Your task to perform on an android device: toggle show notifications on the lock screen Image 0: 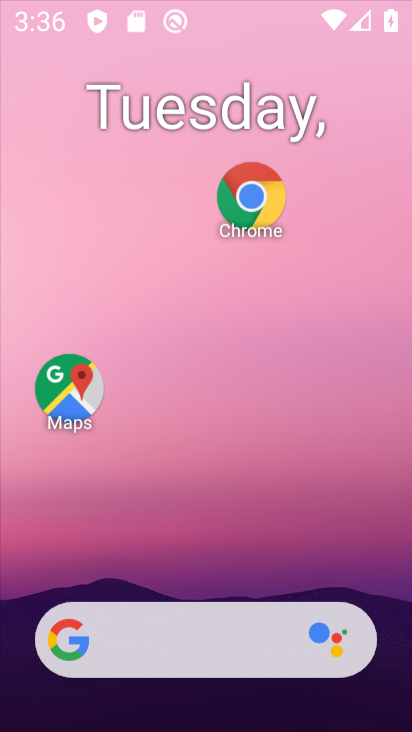
Step 0: click (191, 186)
Your task to perform on an android device: toggle show notifications on the lock screen Image 1: 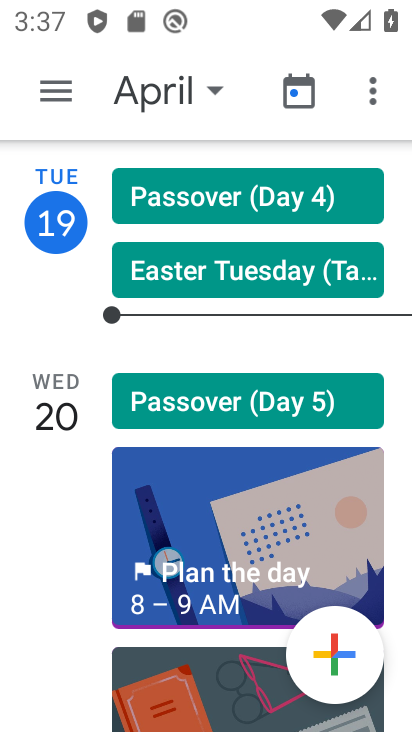
Step 1: press back button
Your task to perform on an android device: toggle show notifications on the lock screen Image 2: 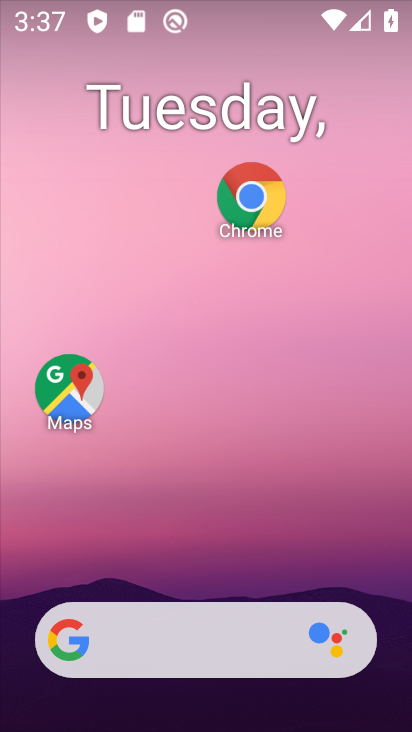
Step 2: drag from (219, 560) to (219, 120)
Your task to perform on an android device: toggle show notifications on the lock screen Image 3: 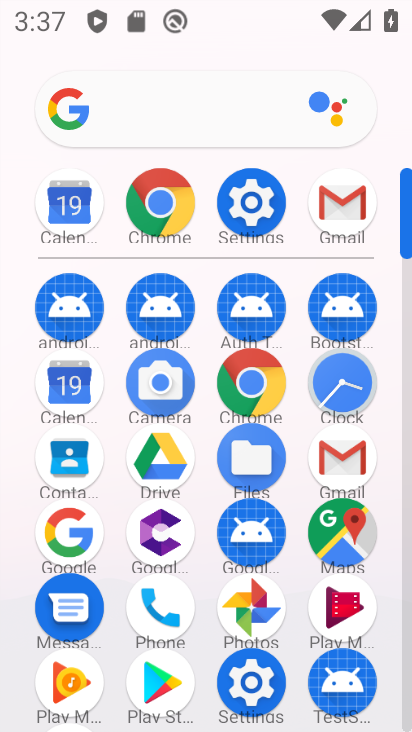
Step 3: click (250, 683)
Your task to perform on an android device: toggle show notifications on the lock screen Image 4: 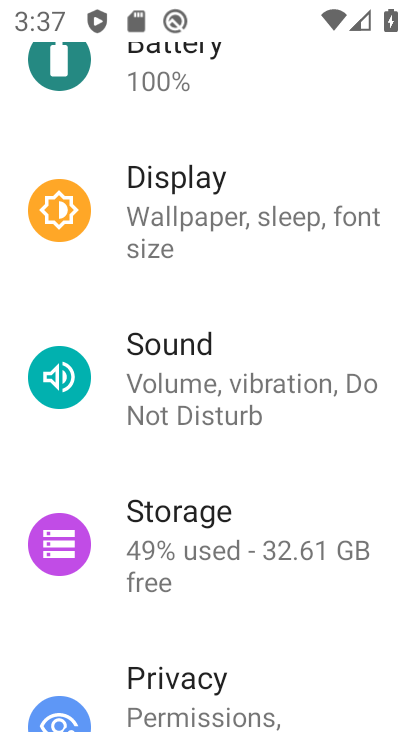
Step 4: click (208, 688)
Your task to perform on an android device: toggle show notifications on the lock screen Image 5: 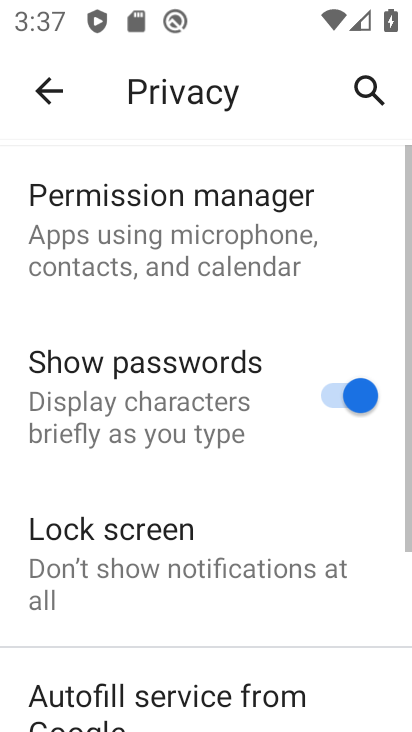
Step 5: click (130, 569)
Your task to perform on an android device: toggle show notifications on the lock screen Image 6: 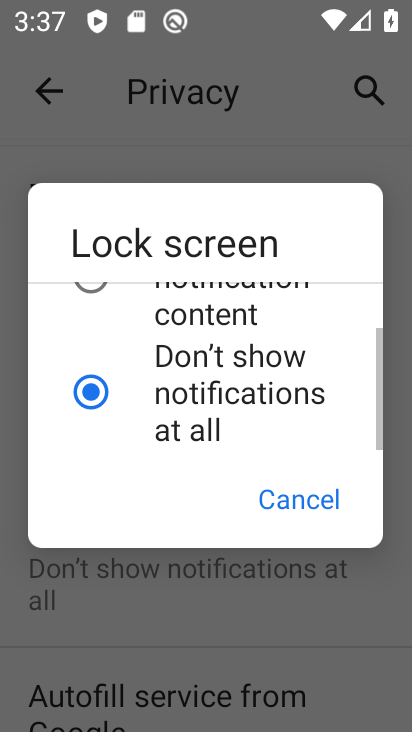
Step 6: click (91, 277)
Your task to perform on an android device: toggle show notifications on the lock screen Image 7: 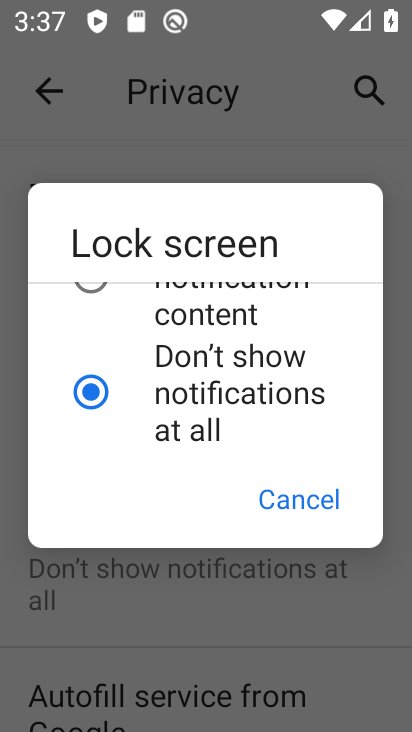
Step 7: drag from (170, 297) to (170, 443)
Your task to perform on an android device: toggle show notifications on the lock screen Image 8: 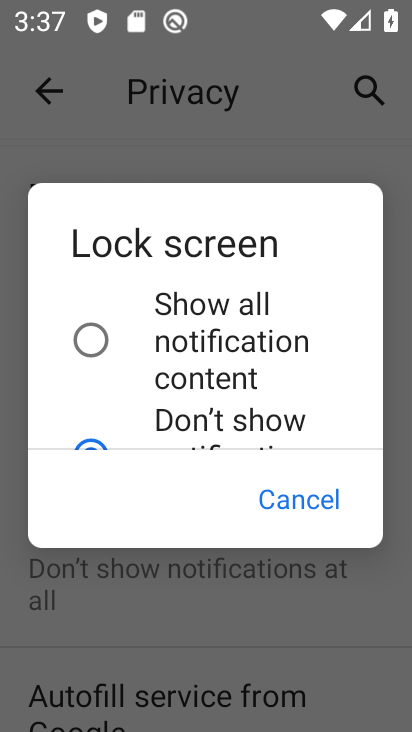
Step 8: click (88, 340)
Your task to perform on an android device: toggle show notifications on the lock screen Image 9: 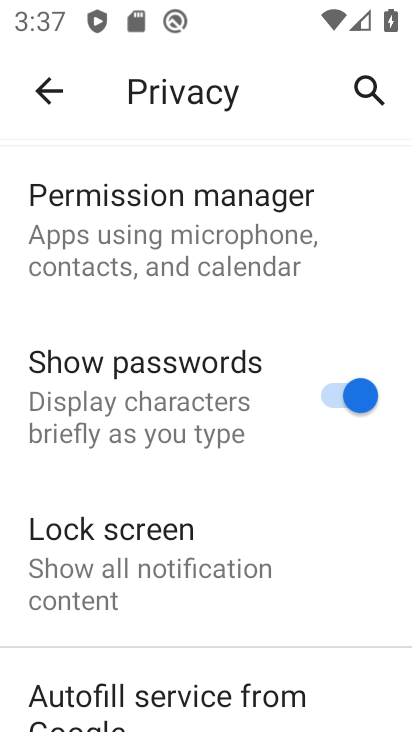
Step 9: task complete